Your task to perform on an android device: star an email in the gmail app Image 0: 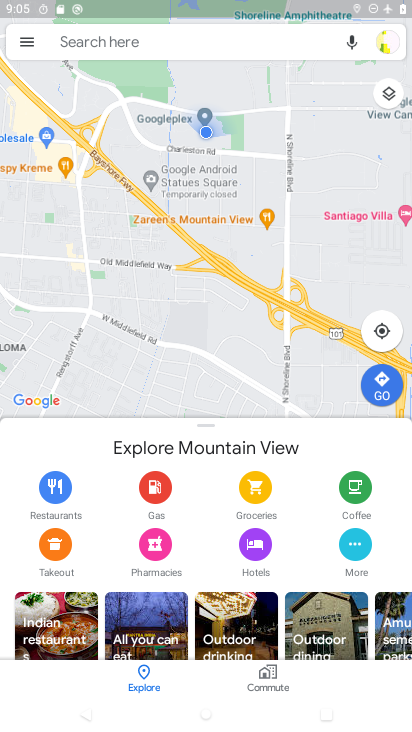
Step 0: press home button
Your task to perform on an android device: star an email in the gmail app Image 1: 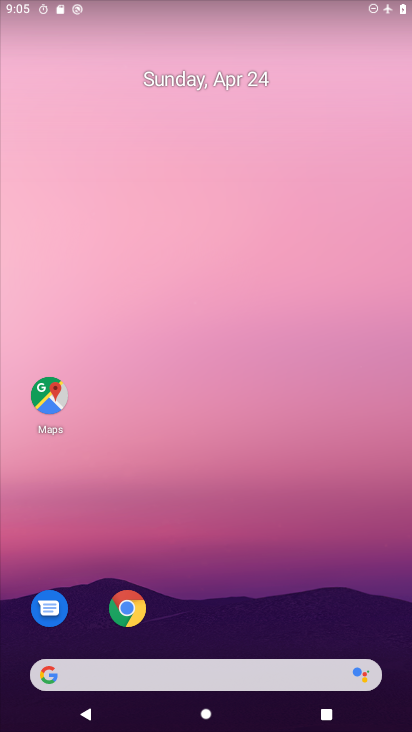
Step 1: drag from (187, 534) to (284, 83)
Your task to perform on an android device: star an email in the gmail app Image 2: 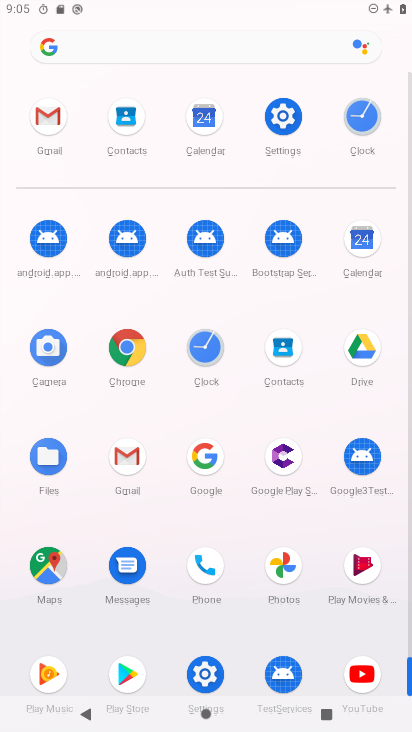
Step 2: click (56, 113)
Your task to perform on an android device: star an email in the gmail app Image 3: 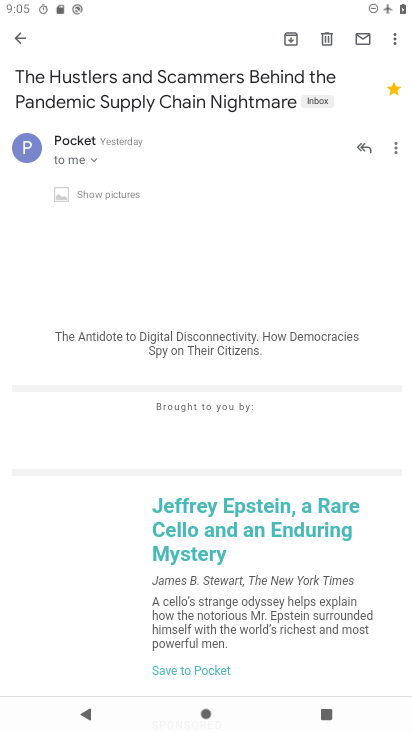
Step 3: click (21, 38)
Your task to perform on an android device: star an email in the gmail app Image 4: 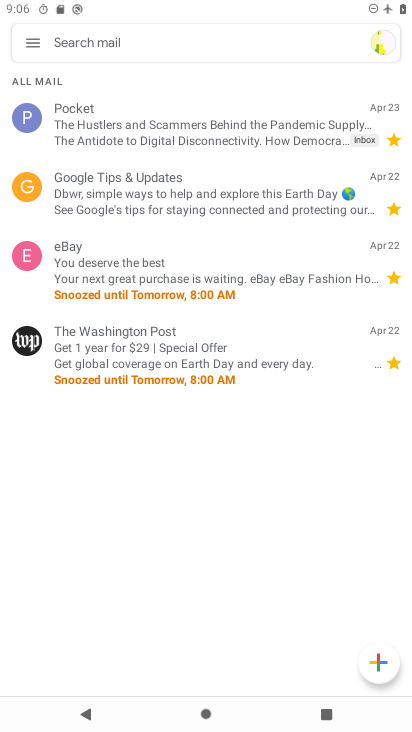
Step 4: click (37, 36)
Your task to perform on an android device: star an email in the gmail app Image 5: 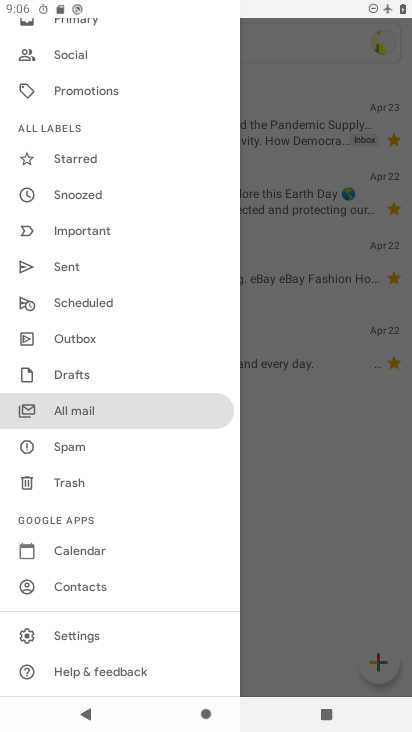
Step 5: click (128, 406)
Your task to perform on an android device: star an email in the gmail app Image 6: 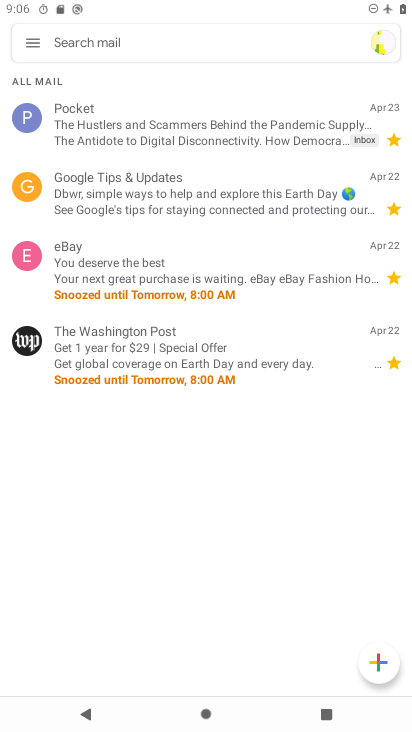
Step 6: task complete